Your task to perform on an android device: turn off notifications in google photos Image 0: 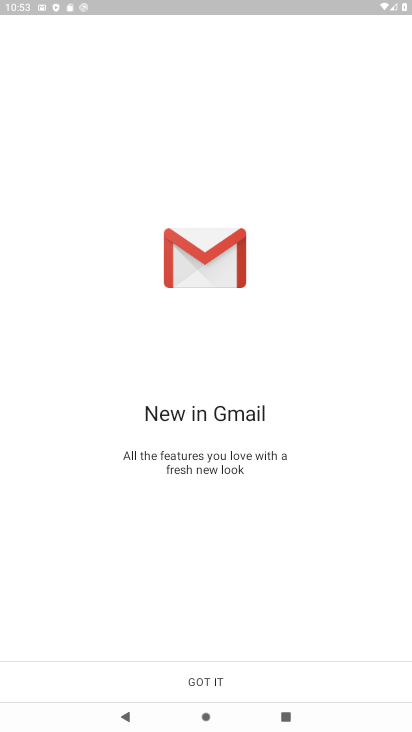
Step 0: click (202, 677)
Your task to perform on an android device: turn off notifications in google photos Image 1: 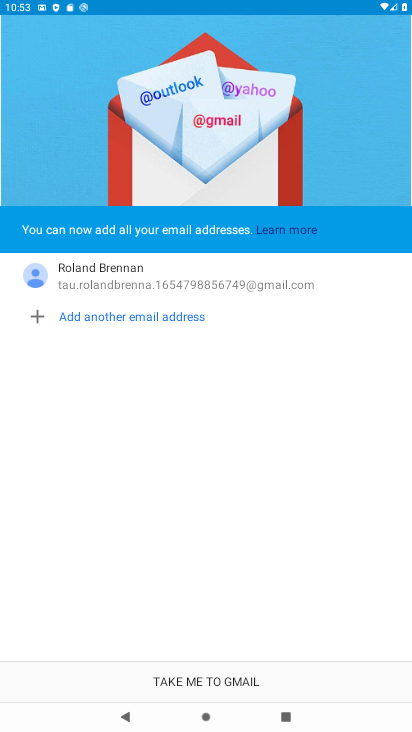
Step 1: click (205, 677)
Your task to perform on an android device: turn off notifications in google photos Image 2: 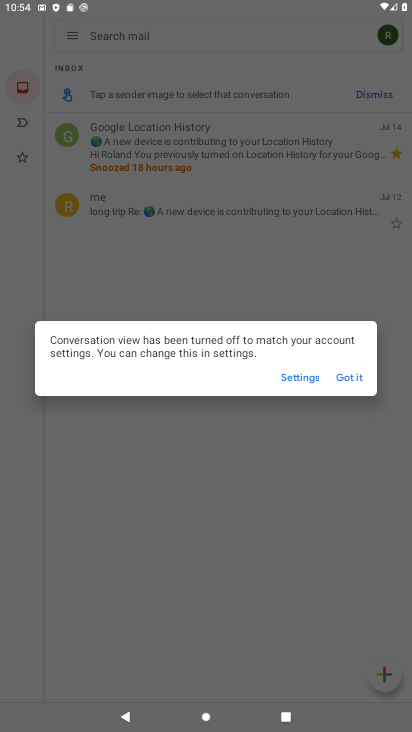
Step 2: click (343, 380)
Your task to perform on an android device: turn off notifications in google photos Image 3: 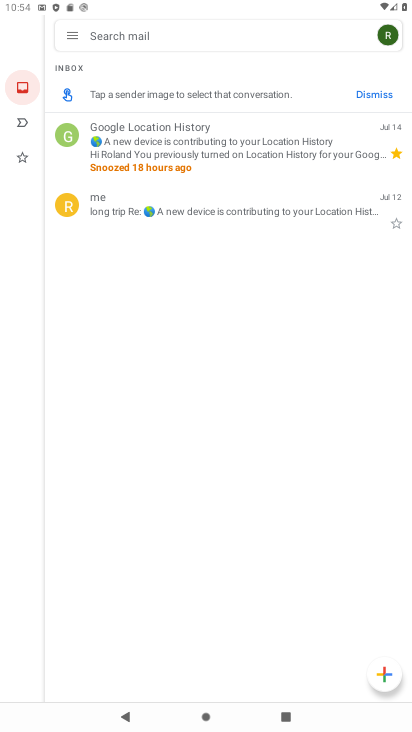
Step 3: click (68, 39)
Your task to perform on an android device: turn off notifications in google photos Image 4: 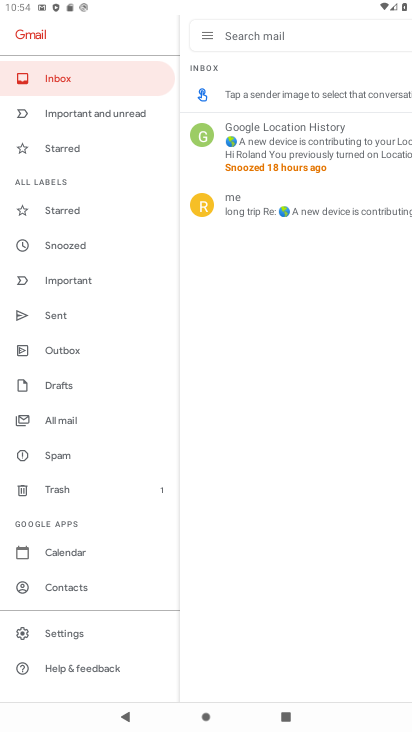
Step 4: click (67, 631)
Your task to perform on an android device: turn off notifications in google photos Image 5: 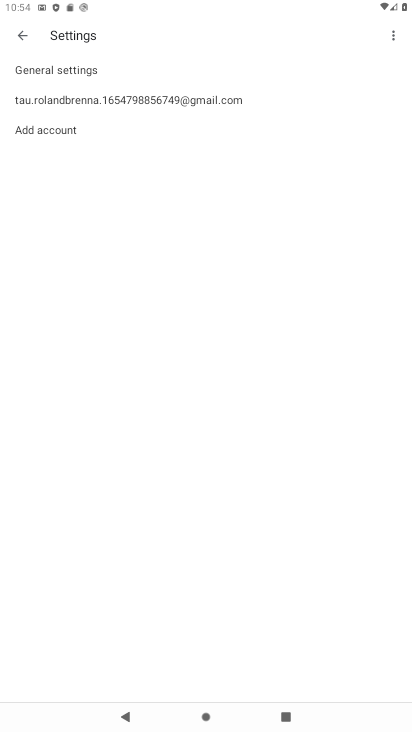
Step 5: click (87, 66)
Your task to perform on an android device: turn off notifications in google photos Image 6: 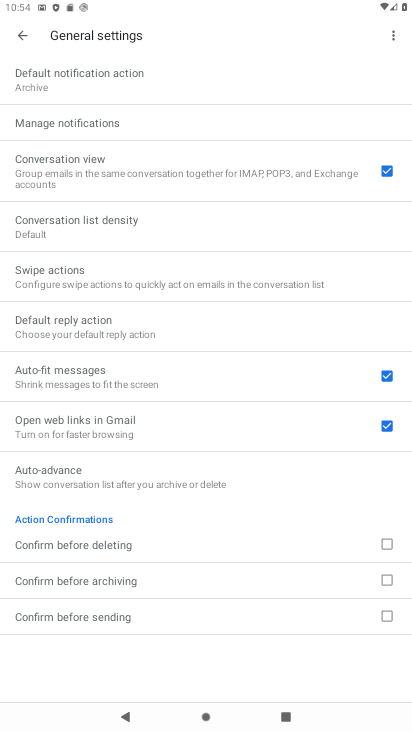
Step 6: click (118, 122)
Your task to perform on an android device: turn off notifications in google photos Image 7: 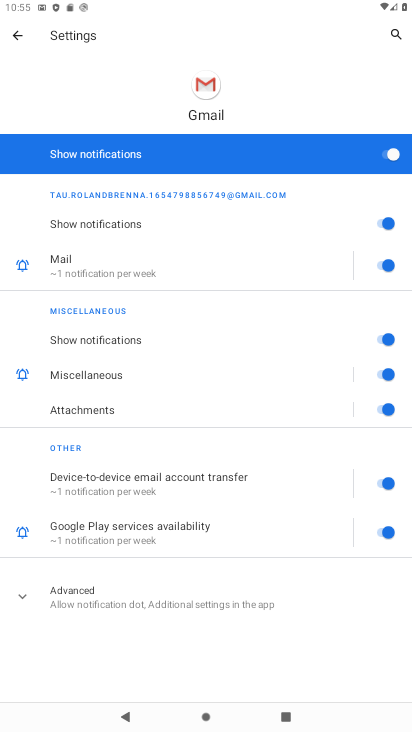
Step 7: click (386, 151)
Your task to perform on an android device: turn off notifications in google photos Image 8: 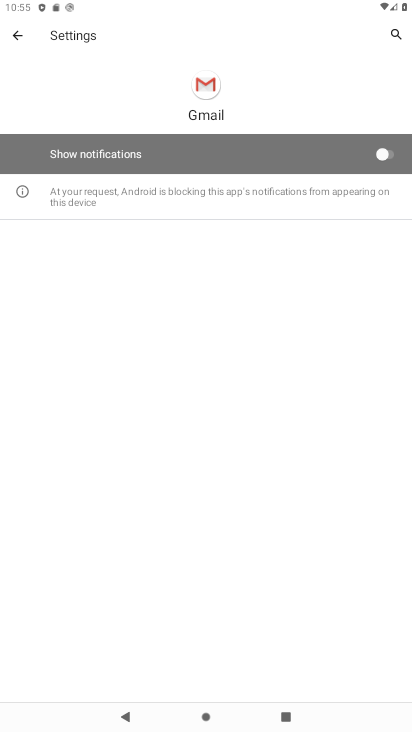
Step 8: task complete